Your task to perform on an android device: Open calendar and show me the first week of next month Image 0: 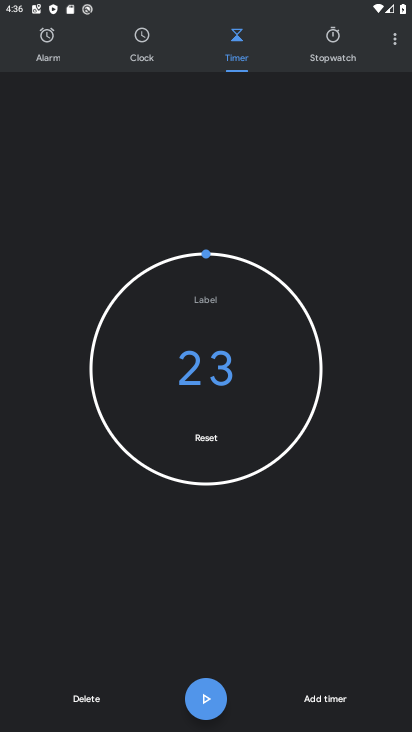
Step 0: press home button
Your task to perform on an android device: Open calendar and show me the first week of next month Image 1: 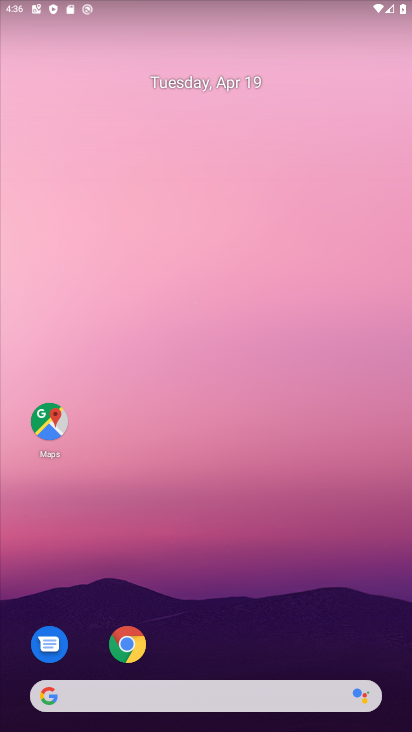
Step 1: drag from (411, 467) to (404, 274)
Your task to perform on an android device: Open calendar and show me the first week of next month Image 2: 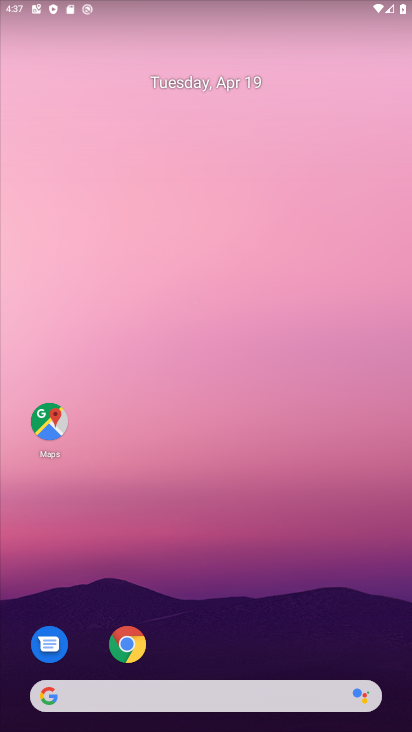
Step 2: drag from (362, 380) to (378, 258)
Your task to perform on an android device: Open calendar and show me the first week of next month Image 3: 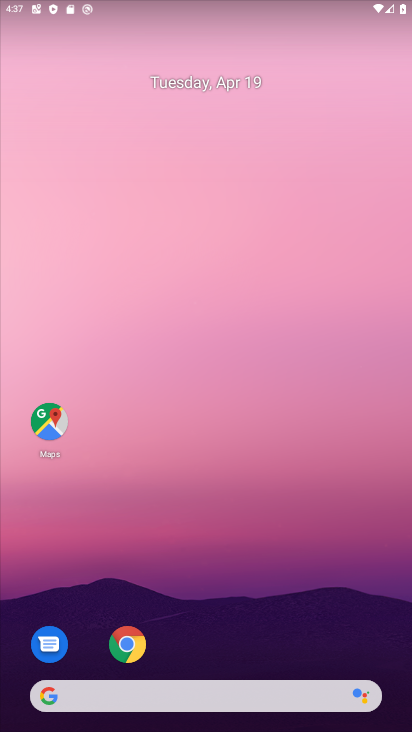
Step 3: click (378, 258)
Your task to perform on an android device: Open calendar and show me the first week of next month Image 4: 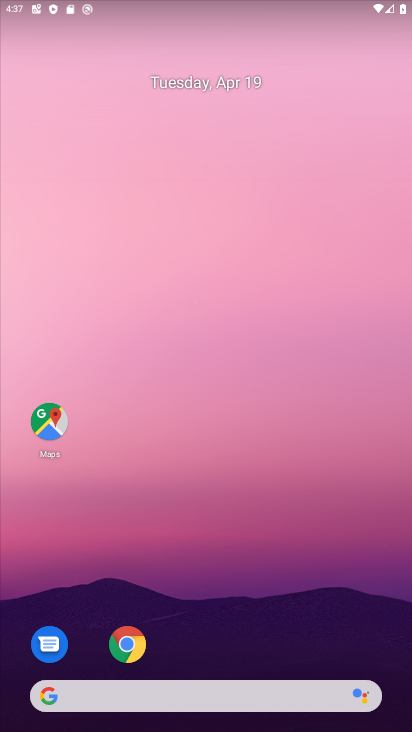
Step 4: drag from (252, 509) to (329, 197)
Your task to perform on an android device: Open calendar and show me the first week of next month Image 5: 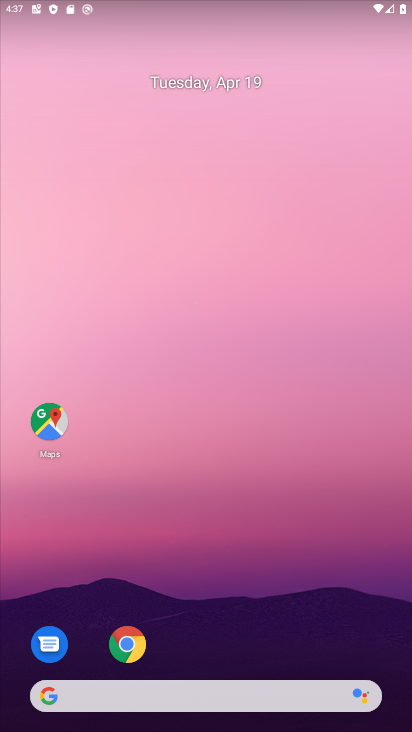
Step 5: drag from (223, 633) to (236, 223)
Your task to perform on an android device: Open calendar and show me the first week of next month Image 6: 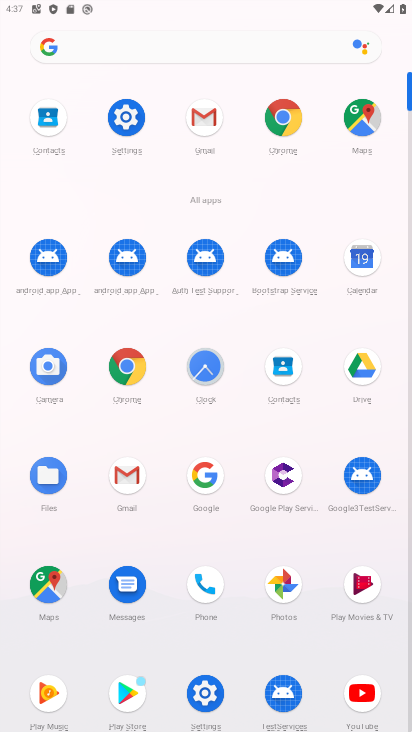
Step 6: click (359, 268)
Your task to perform on an android device: Open calendar and show me the first week of next month Image 7: 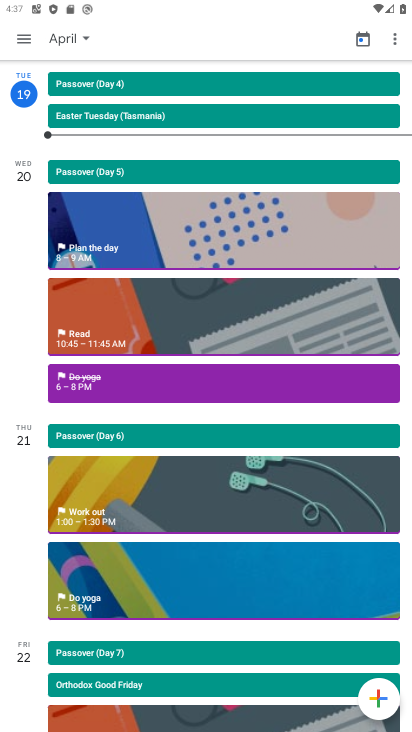
Step 7: click (70, 42)
Your task to perform on an android device: Open calendar and show me the first week of next month Image 8: 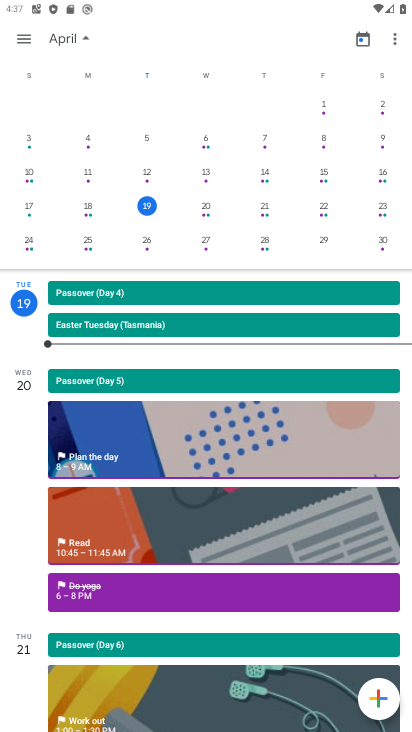
Step 8: drag from (293, 226) to (28, 206)
Your task to perform on an android device: Open calendar and show me the first week of next month Image 9: 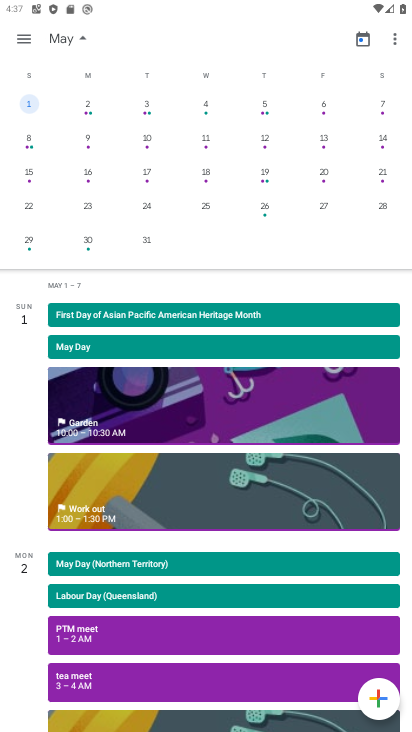
Step 9: click (82, 114)
Your task to perform on an android device: Open calendar and show me the first week of next month Image 10: 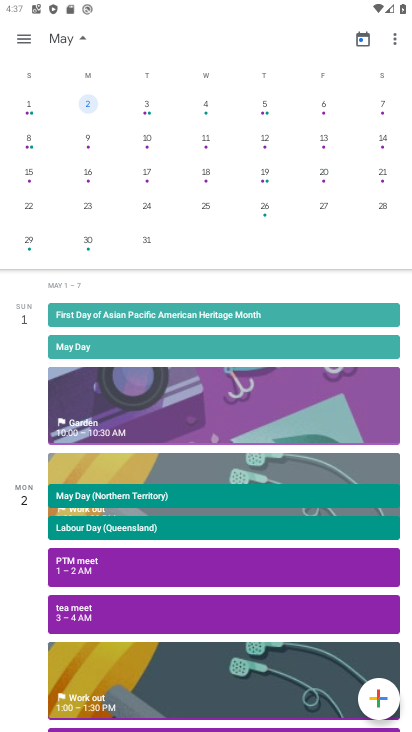
Step 10: click (145, 107)
Your task to perform on an android device: Open calendar and show me the first week of next month Image 11: 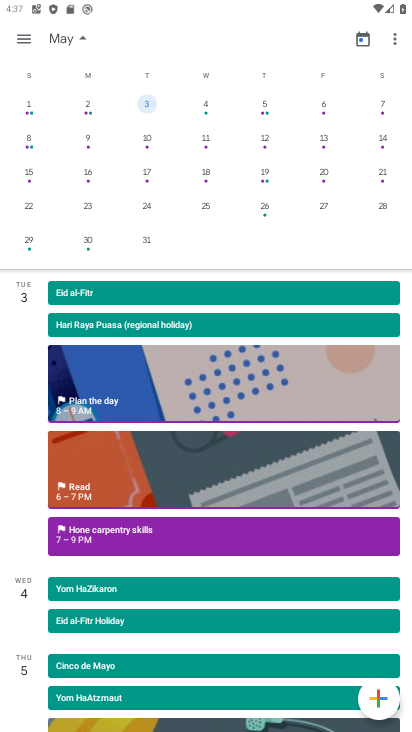
Step 11: click (216, 107)
Your task to perform on an android device: Open calendar and show me the first week of next month Image 12: 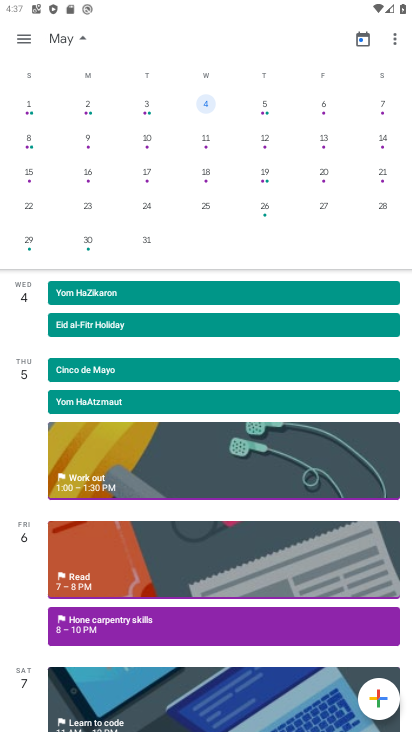
Step 12: click (271, 111)
Your task to perform on an android device: Open calendar and show me the first week of next month Image 13: 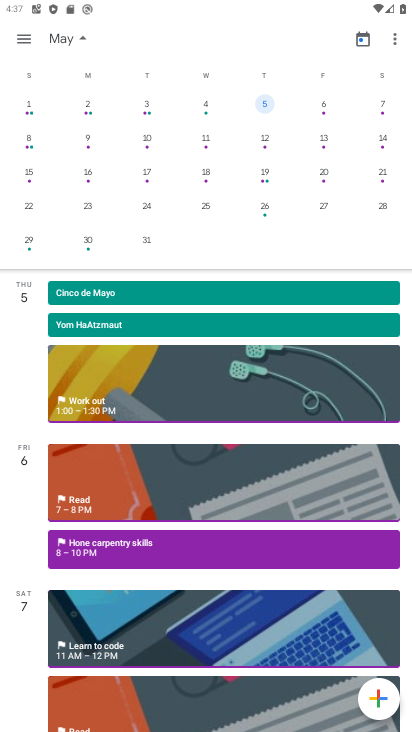
Step 13: click (318, 118)
Your task to perform on an android device: Open calendar and show me the first week of next month Image 14: 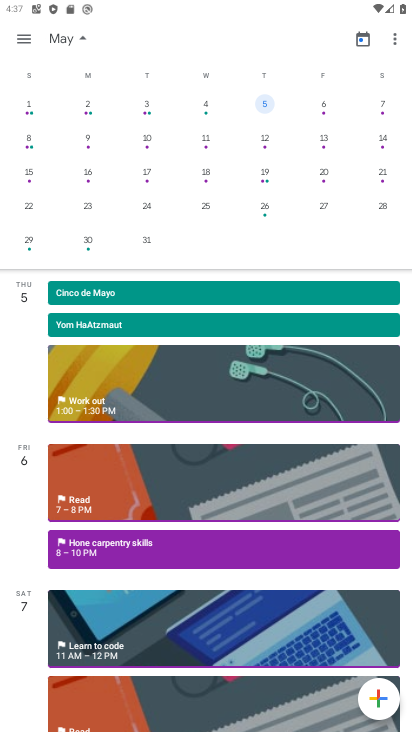
Step 14: click (388, 114)
Your task to perform on an android device: Open calendar and show me the first week of next month Image 15: 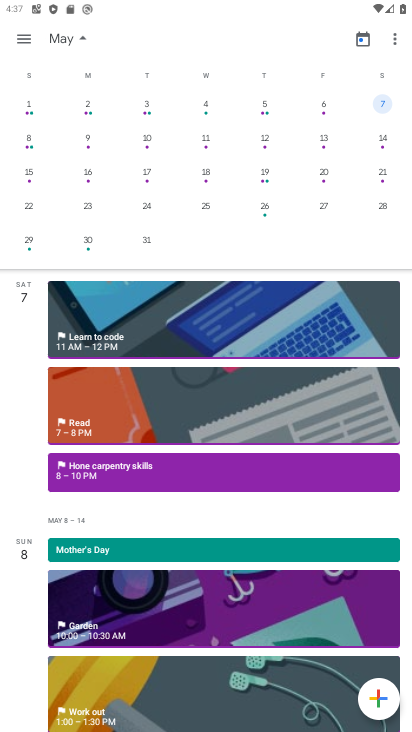
Step 15: task complete